Your task to perform on an android device: Go to Yahoo.com Image 0: 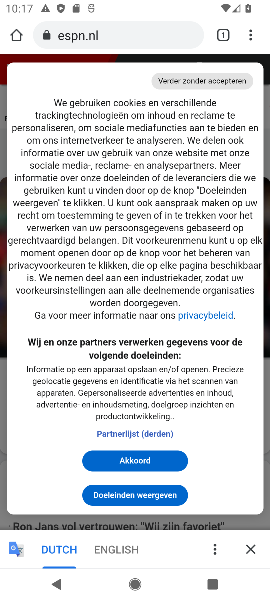
Step 0: click (100, 37)
Your task to perform on an android device: Go to Yahoo.com Image 1: 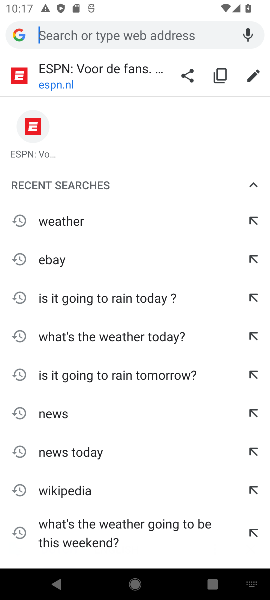
Step 1: type "yahoo.com"
Your task to perform on an android device: Go to Yahoo.com Image 2: 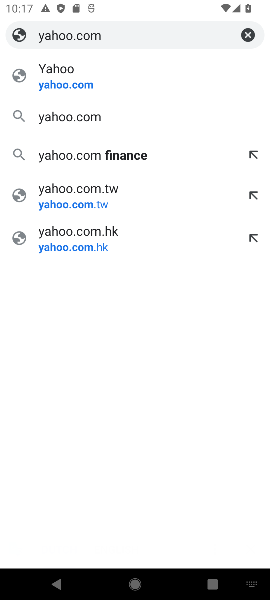
Step 2: click (164, 68)
Your task to perform on an android device: Go to Yahoo.com Image 3: 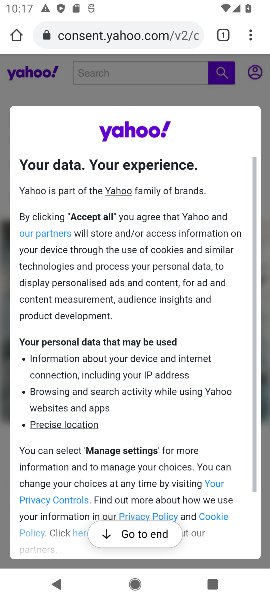
Step 3: task complete